Your task to perform on an android device: turn on airplane mode Image 0: 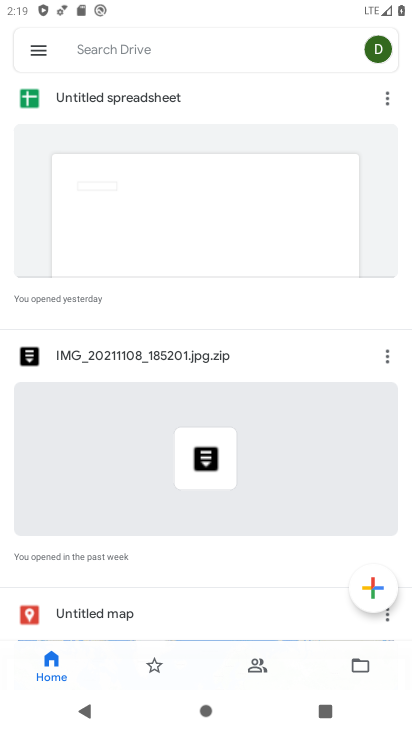
Step 0: press home button
Your task to perform on an android device: turn on airplane mode Image 1: 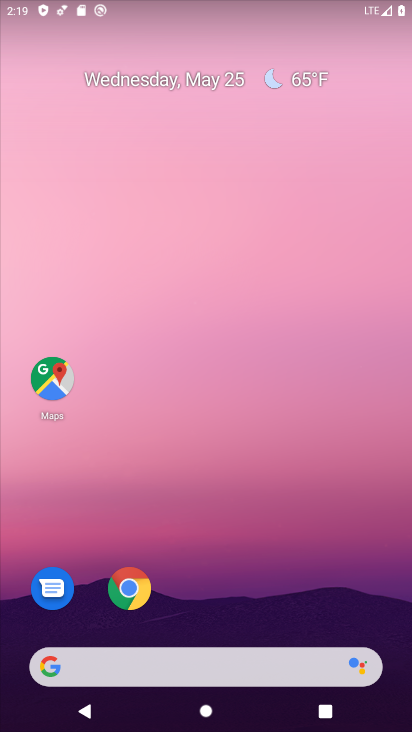
Step 1: drag from (198, 604) to (226, 207)
Your task to perform on an android device: turn on airplane mode Image 2: 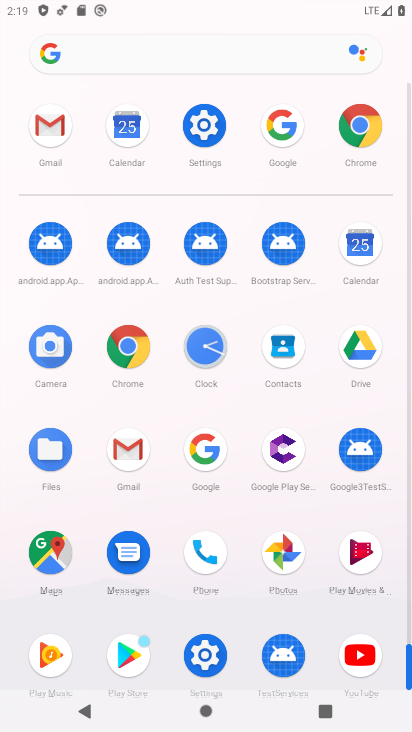
Step 2: click (200, 123)
Your task to perform on an android device: turn on airplane mode Image 3: 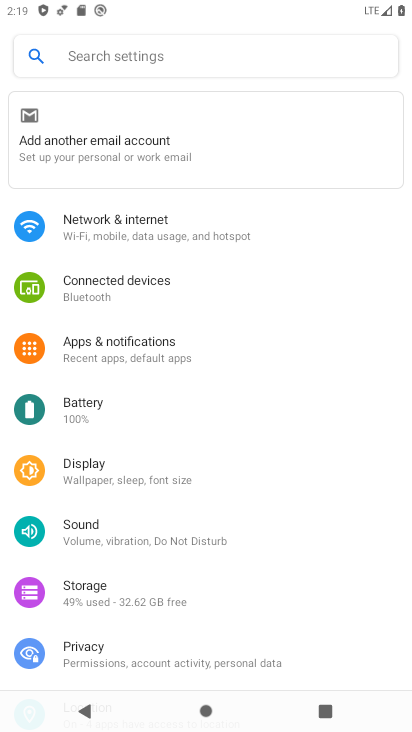
Step 3: click (155, 230)
Your task to perform on an android device: turn on airplane mode Image 4: 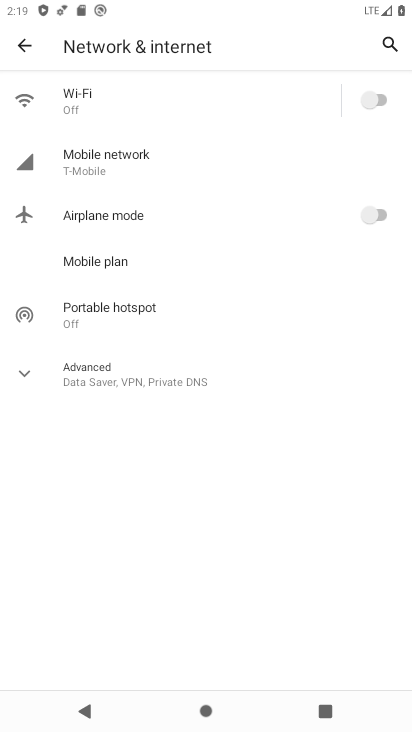
Step 4: click (383, 215)
Your task to perform on an android device: turn on airplane mode Image 5: 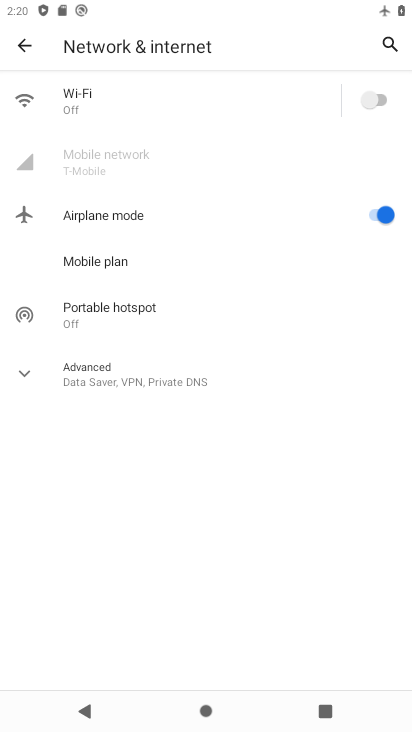
Step 5: task complete